Your task to perform on an android device: Open display settings Image 0: 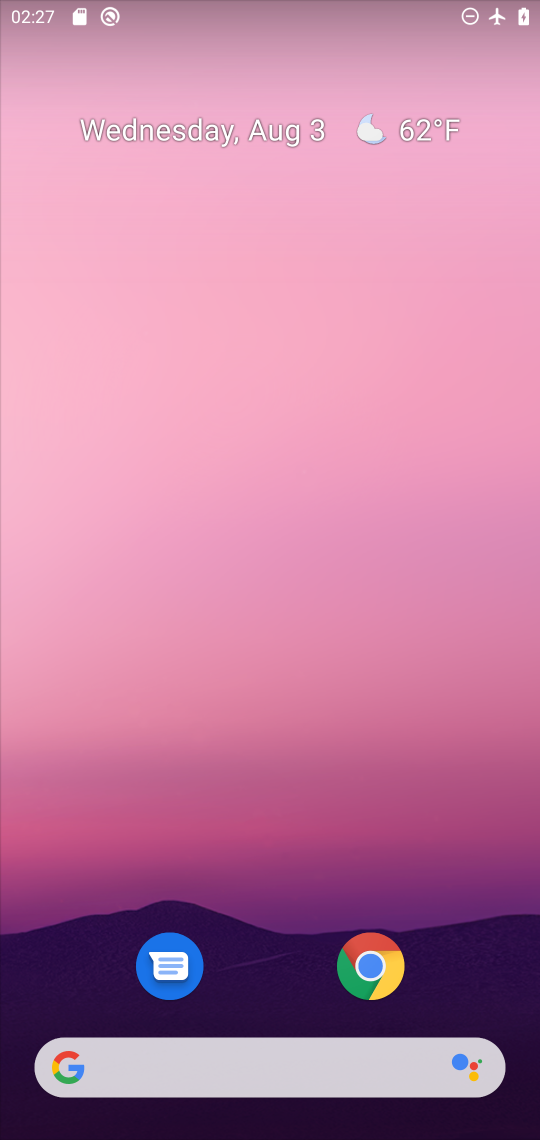
Step 0: drag from (260, 535) to (227, 251)
Your task to perform on an android device: Open display settings Image 1: 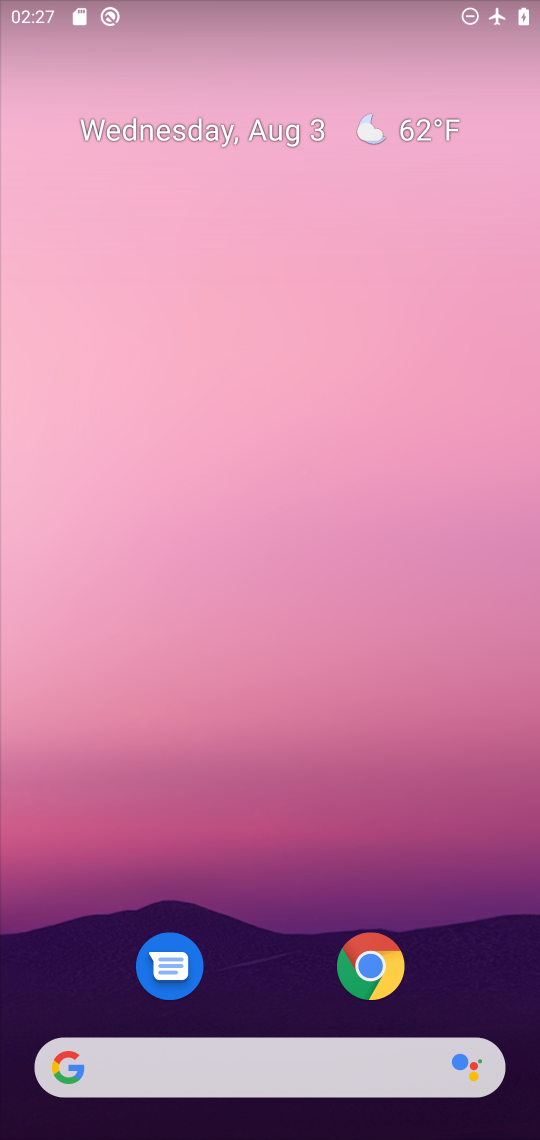
Step 1: drag from (264, 937) to (264, 220)
Your task to perform on an android device: Open display settings Image 2: 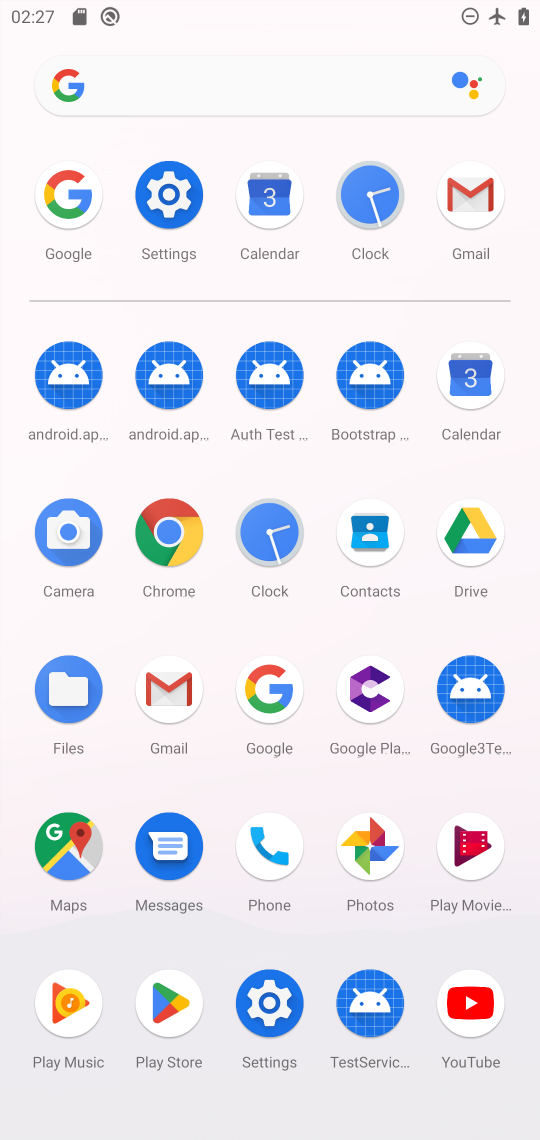
Step 2: click (159, 208)
Your task to perform on an android device: Open display settings Image 3: 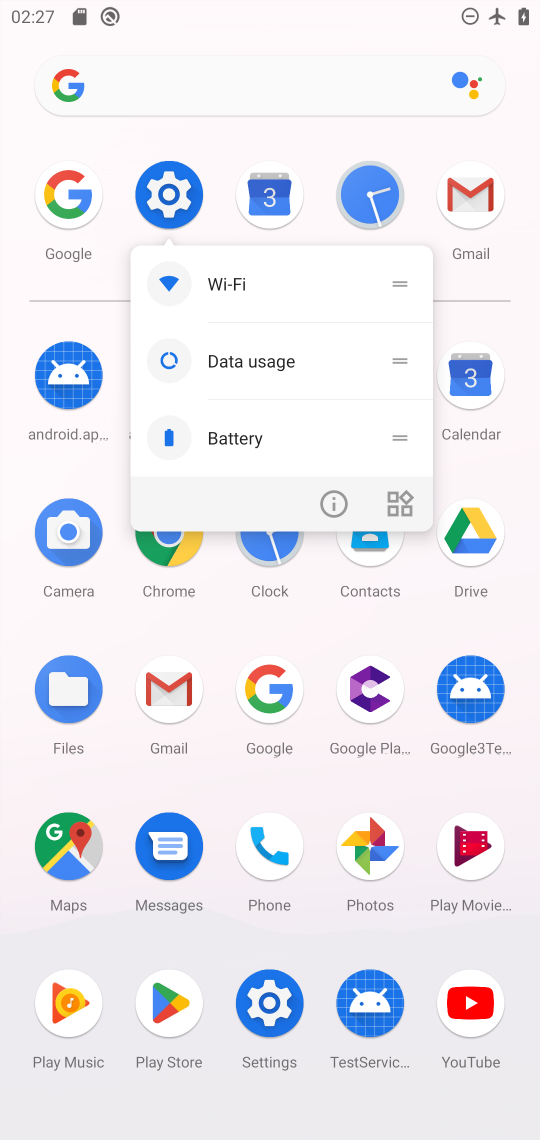
Step 3: click (159, 208)
Your task to perform on an android device: Open display settings Image 4: 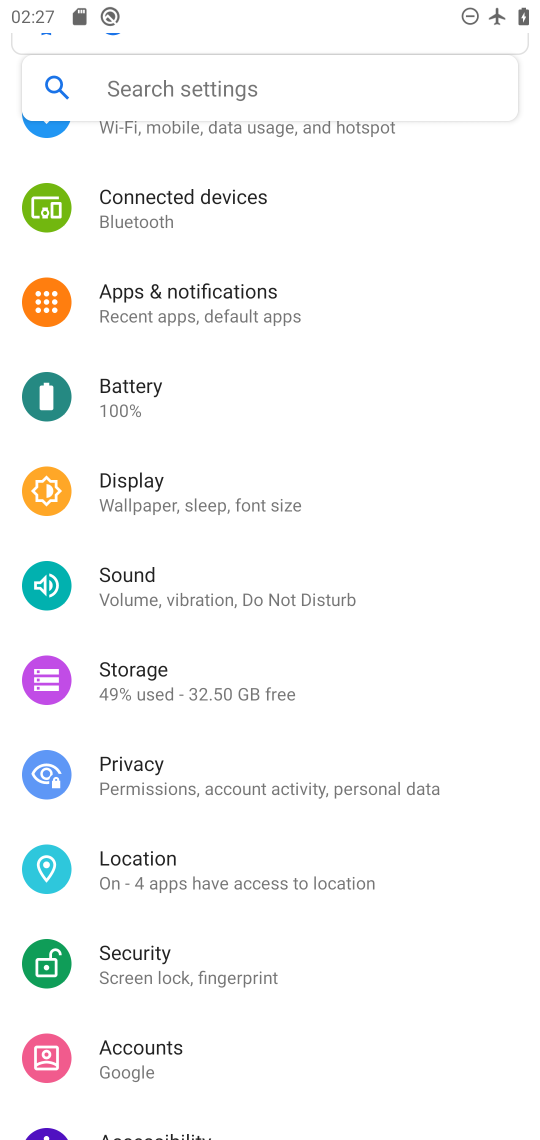
Step 4: click (211, 493)
Your task to perform on an android device: Open display settings Image 5: 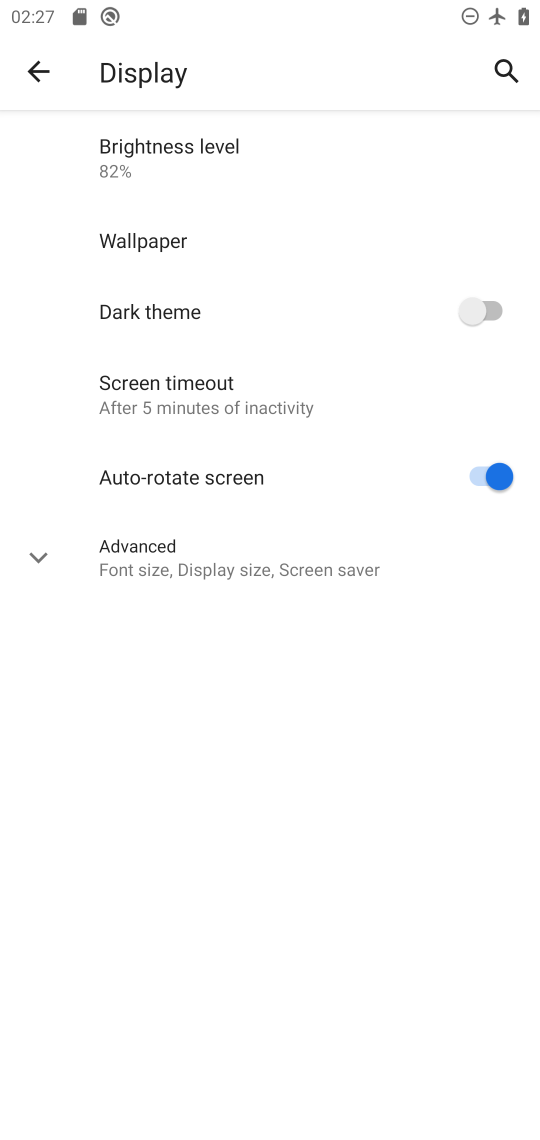
Step 5: task complete